Your task to perform on an android device: choose inbox layout in the gmail app Image 0: 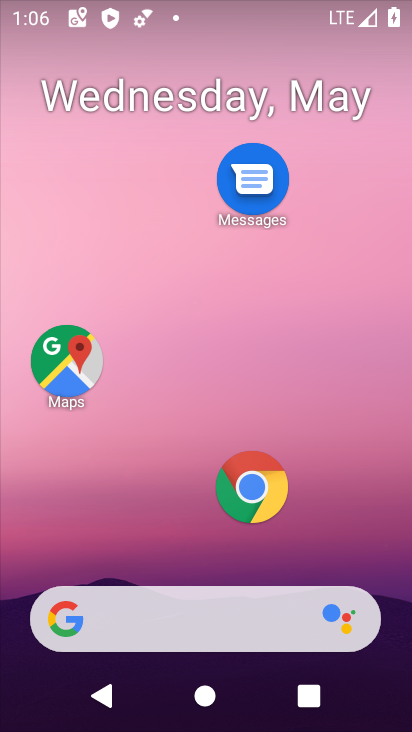
Step 0: drag from (173, 529) to (237, 42)
Your task to perform on an android device: choose inbox layout in the gmail app Image 1: 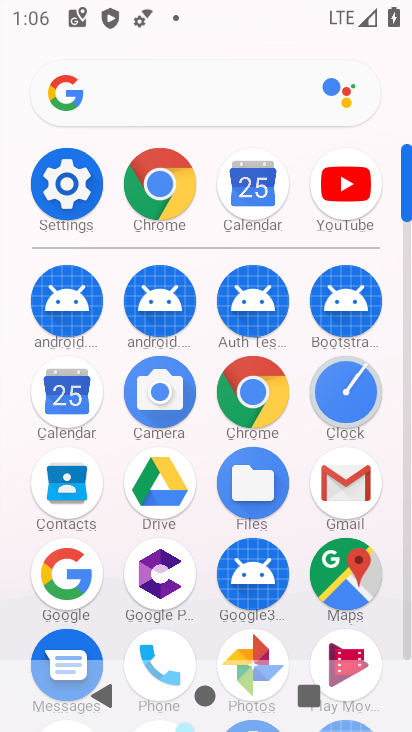
Step 1: click (354, 481)
Your task to perform on an android device: choose inbox layout in the gmail app Image 2: 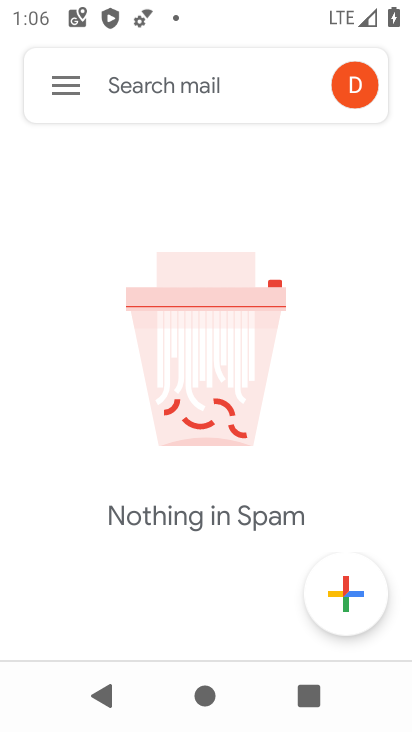
Step 2: click (68, 95)
Your task to perform on an android device: choose inbox layout in the gmail app Image 3: 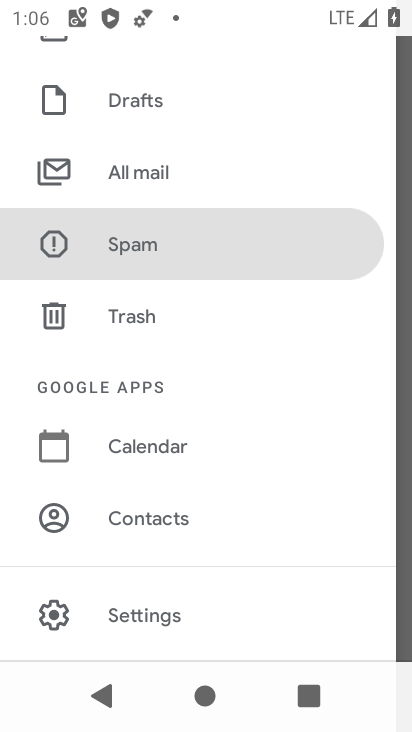
Step 3: click (161, 607)
Your task to perform on an android device: choose inbox layout in the gmail app Image 4: 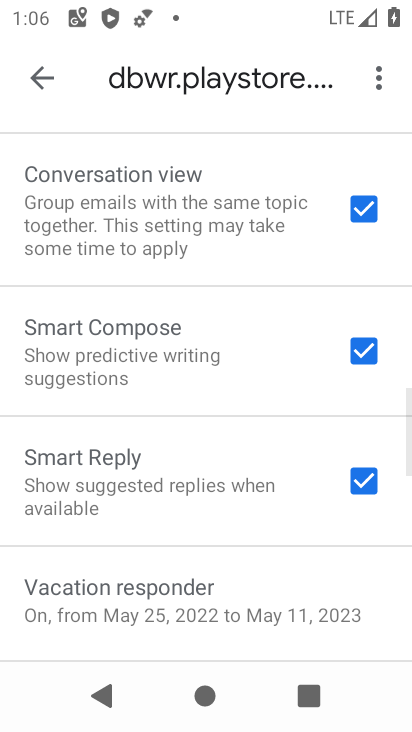
Step 4: click (40, 76)
Your task to perform on an android device: choose inbox layout in the gmail app Image 5: 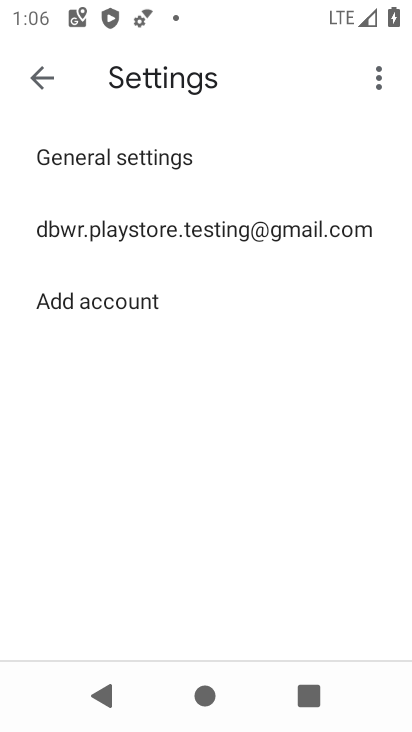
Step 5: click (182, 239)
Your task to perform on an android device: choose inbox layout in the gmail app Image 6: 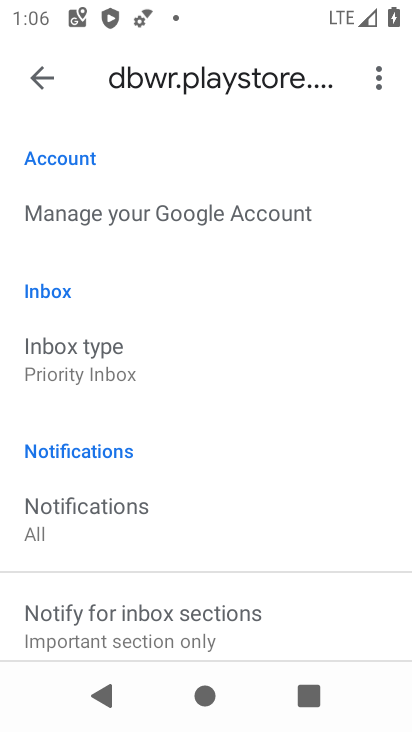
Step 6: click (152, 358)
Your task to perform on an android device: choose inbox layout in the gmail app Image 7: 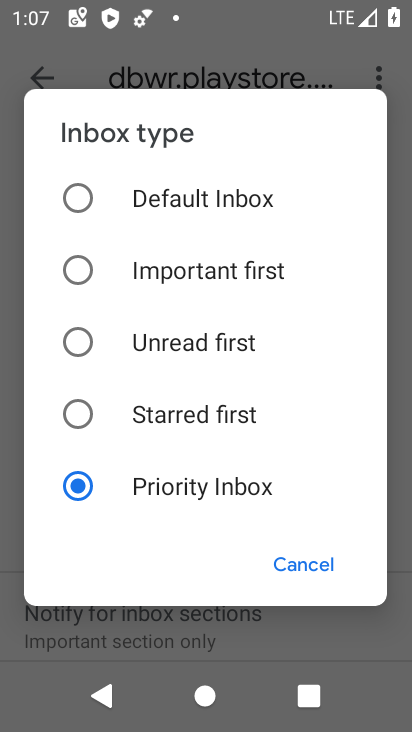
Step 7: click (154, 205)
Your task to perform on an android device: choose inbox layout in the gmail app Image 8: 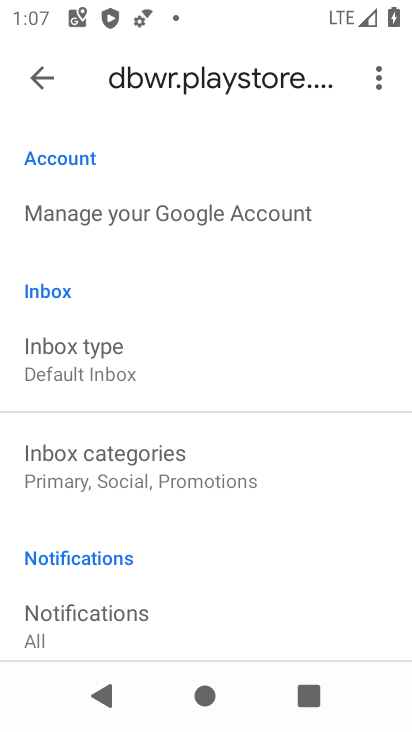
Step 8: task complete